Your task to perform on an android device: Open the calendar app, open the side menu, and click the "Day" option Image 0: 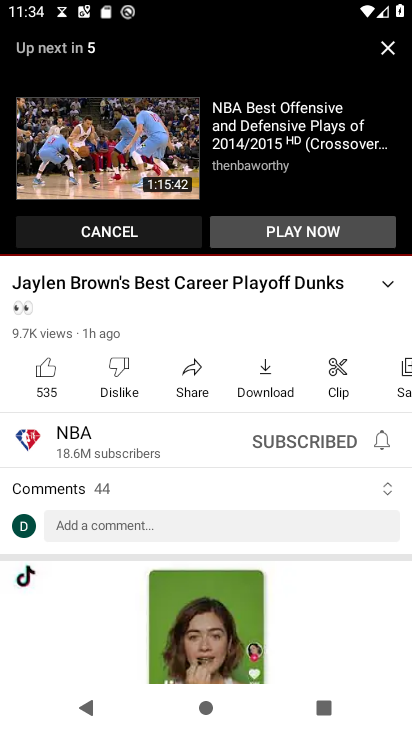
Step 0: press home button
Your task to perform on an android device: Open the calendar app, open the side menu, and click the "Day" option Image 1: 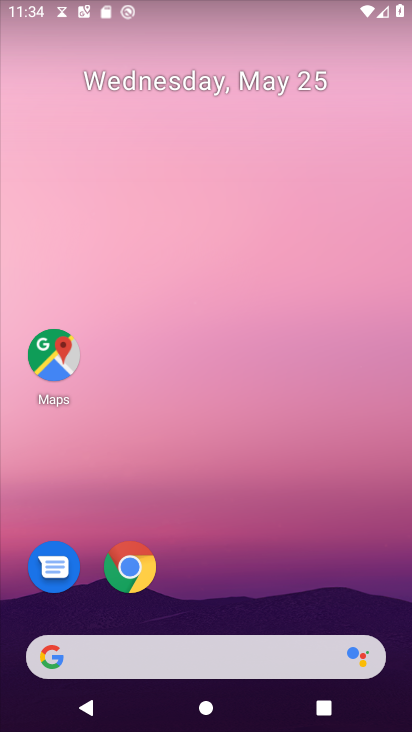
Step 1: drag from (286, 518) to (306, 93)
Your task to perform on an android device: Open the calendar app, open the side menu, and click the "Day" option Image 2: 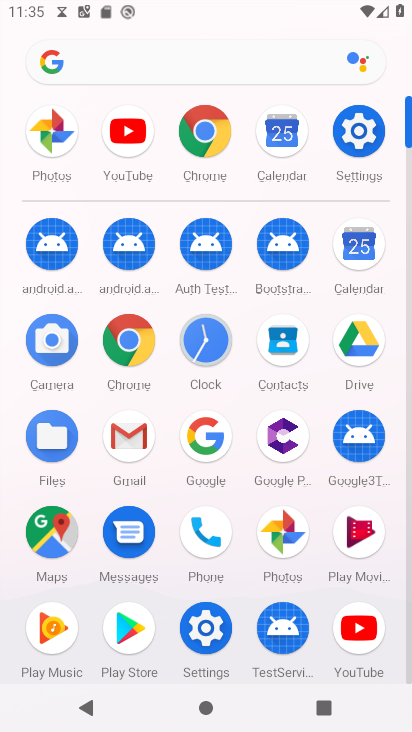
Step 2: click (286, 125)
Your task to perform on an android device: Open the calendar app, open the side menu, and click the "Day" option Image 3: 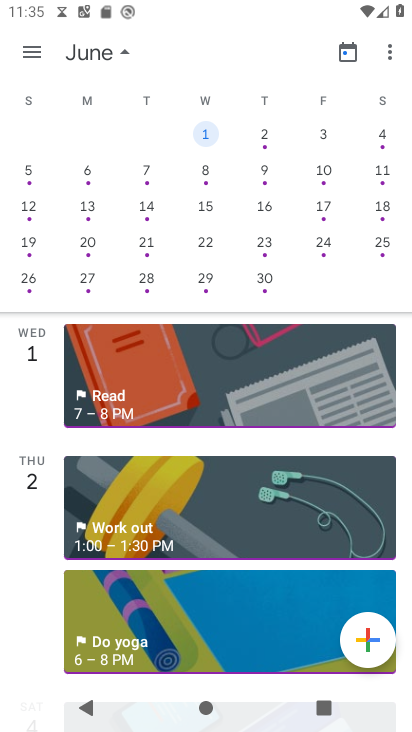
Step 3: click (39, 51)
Your task to perform on an android device: Open the calendar app, open the side menu, and click the "Day" option Image 4: 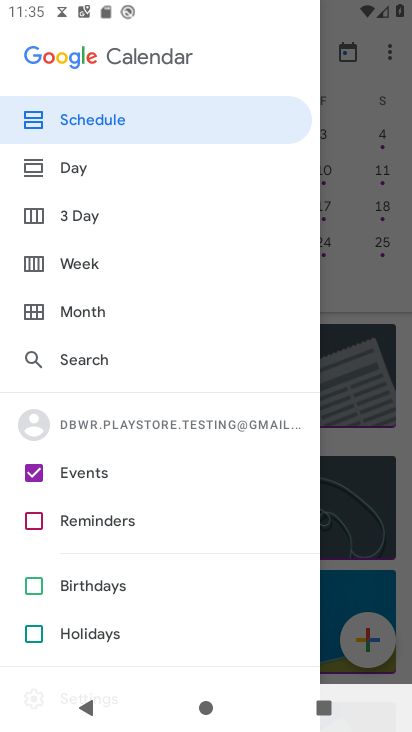
Step 4: click (106, 168)
Your task to perform on an android device: Open the calendar app, open the side menu, and click the "Day" option Image 5: 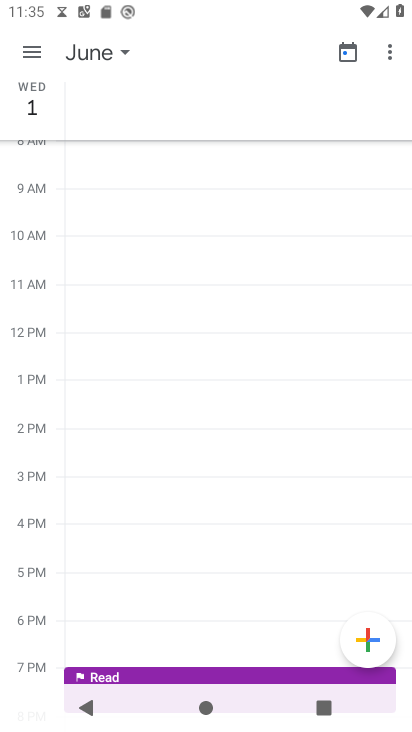
Step 5: task complete